Your task to perform on an android device: toggle data saver in the chrome app Image 0: 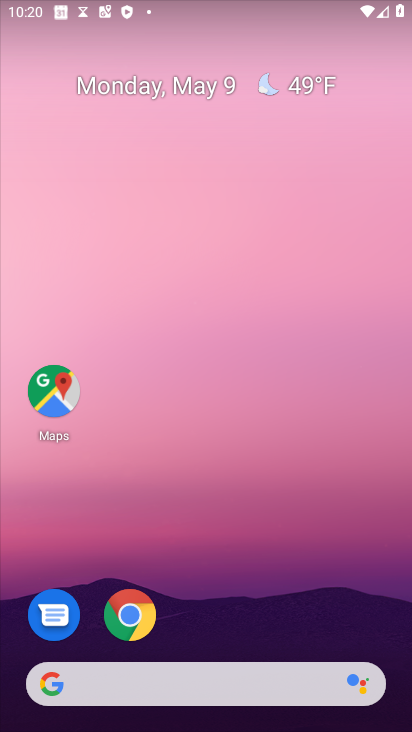
Step 0: click (142, 625)
Your task to perform on an android device: toggle data saver in the chrome app Image 1: 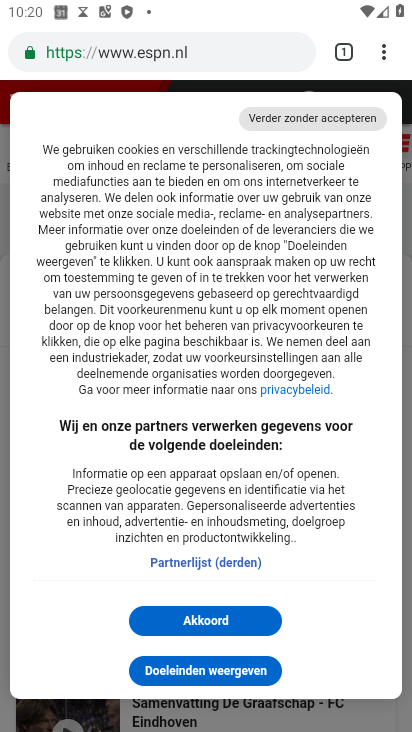
Step 1: press home button
Your task to perform on an android device: toggle data saver in the chrome app Image 2: 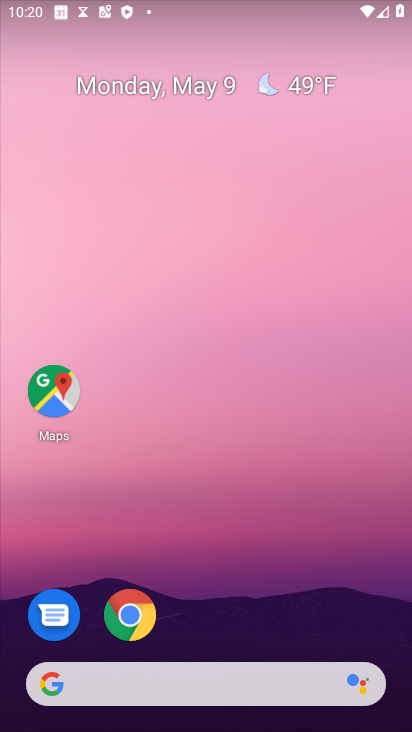
Step 2: click (146, 626)
Your task to perform on an android device: toggle data saver in the chrome app Image 3: 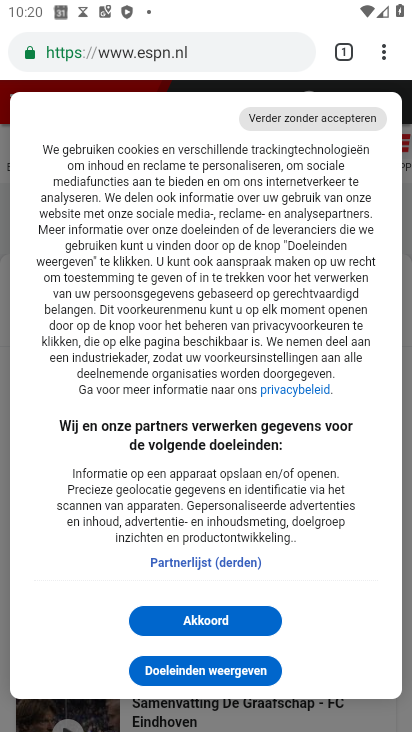
Step 3: drag from (384, 62) to (235, 656)
Your task to perform on an android device: toggle data saver in the chrome app Image 4: 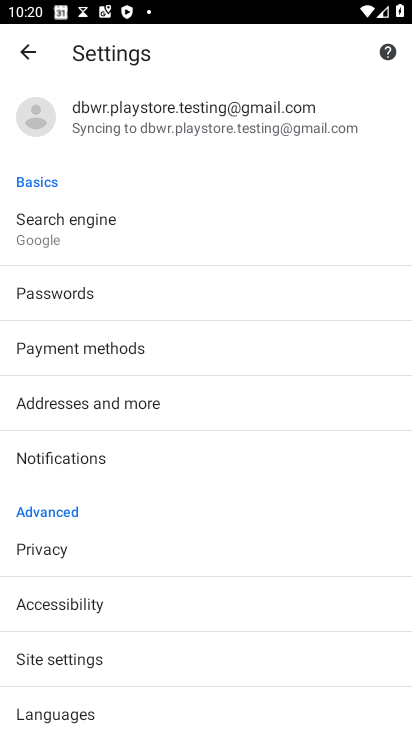
Step 4: drag from (122, 649) to (158, 440)
Your task to perform on an android device: toggle data saver in the chrome app Image 5: 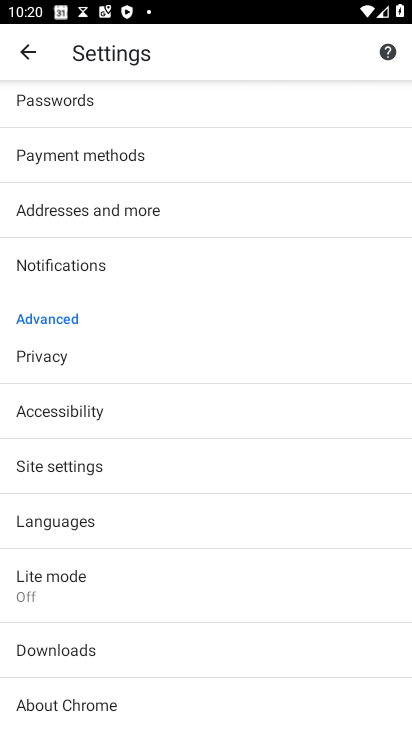
Step 5: click (94, 591)
Your task to perform on an android device: toggle data saver in the chrome app Image 6: 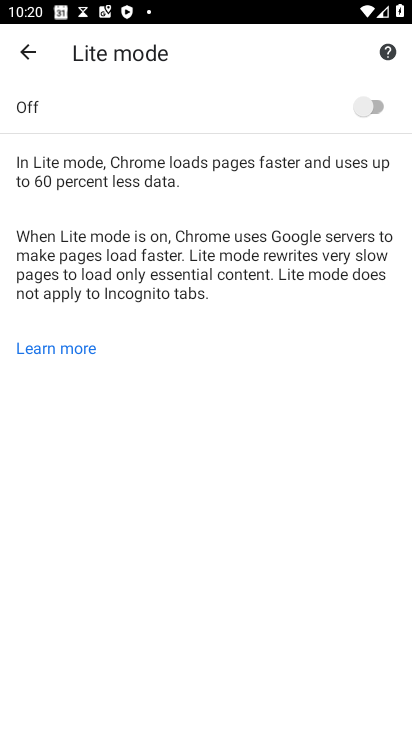
Step 6: click (364, 110)
Your task to perform on an android device: toggle data saver in the chrome app Image 7: 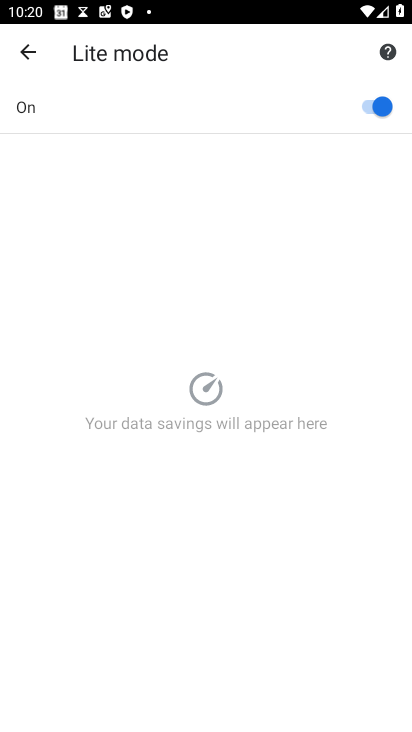
Step 7: task complete